Your task to perform on an android device: check the backup settings in the google photos Image 0: 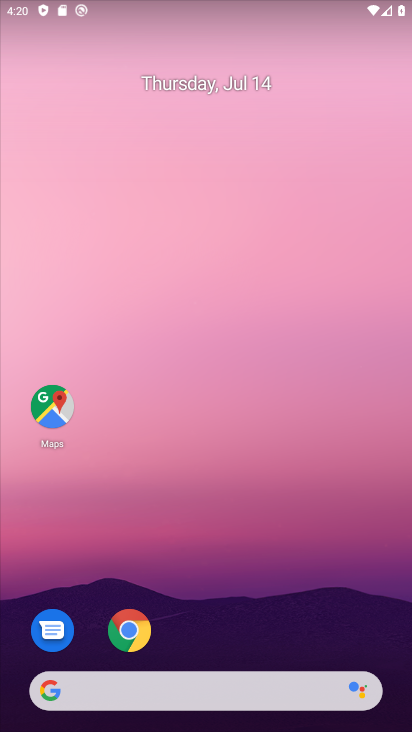
Step 0: drag from (243, 613) to (311, 10)
Your task to perform on an android device: check the backup settings in the google photos Image 1: 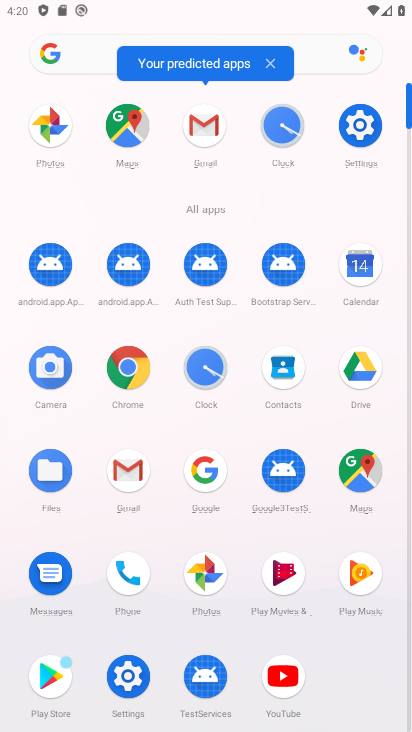
Step 1: click (209, 563)
Your task to perform on an android device: check the backup settings in the google photos Image 2: 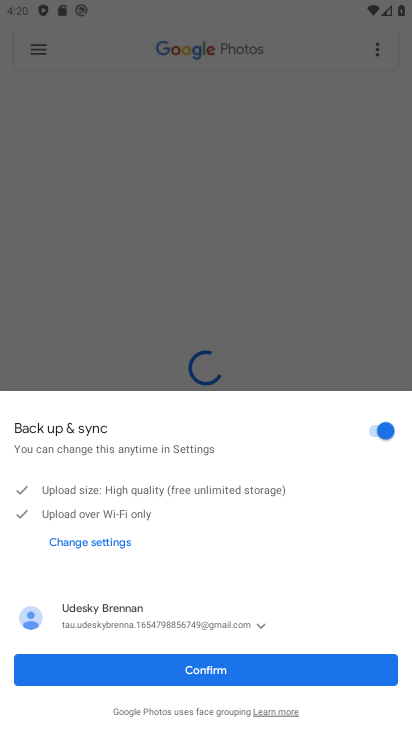
Step 2: click (202, 668)
Your task to perform on an android device: check the backup settings in the google photos Image 3: 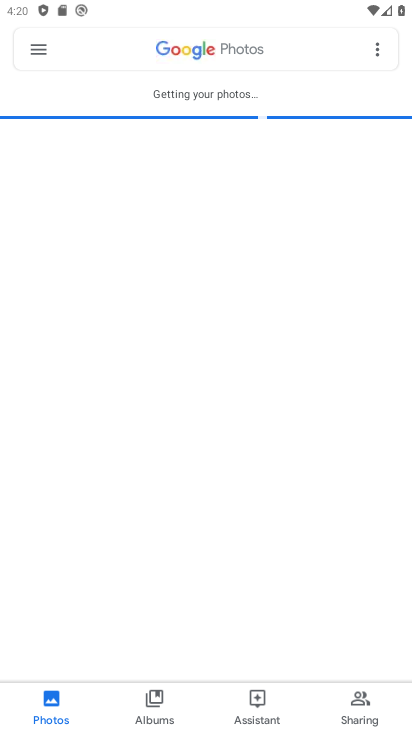
Step 3: click (41, 32)
Your task to perform on an android device: check the backup settings in the google photos Image 4: 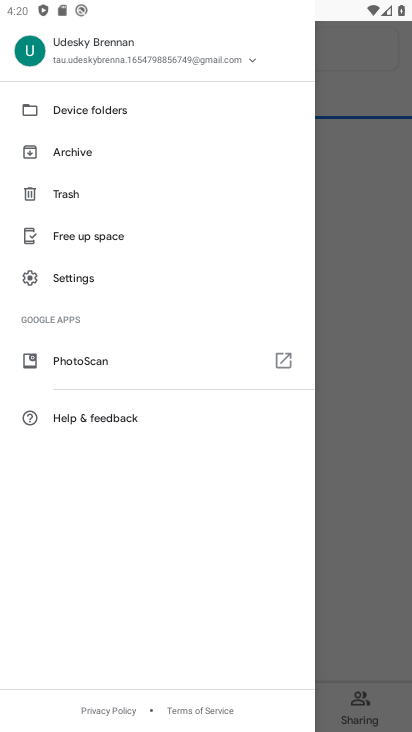
Step 4: click (81, 277)
Your task to perform on an android device: check the backup settings in the google photos Image 5: 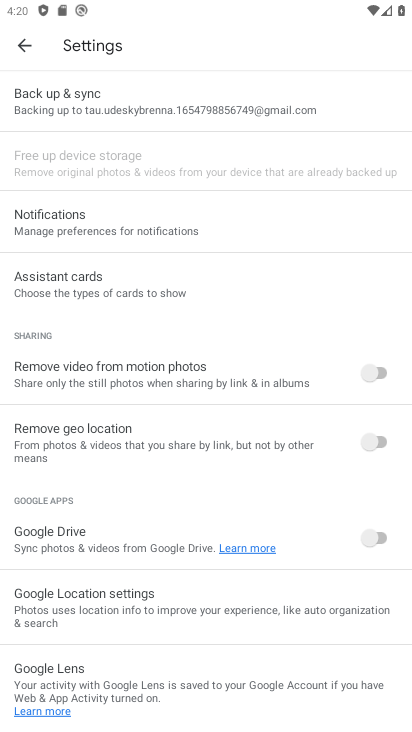
Step 5: click (114, 101)
Your task to perform on an android device: check the backup settings in the google photos Image 6: 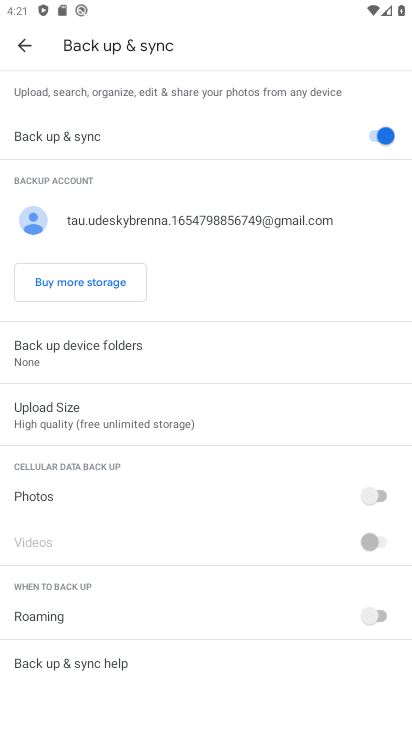
Step 6: task complete